Your task to perform on an android device: Open wifi settings Image 0: 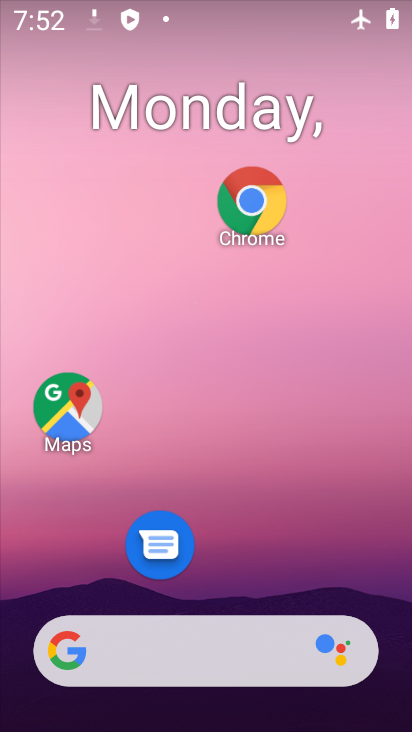
Step 0: drag from (241, 585) to (207, 126)
Your task to perform on an android device: Open wifi settings Image 1: 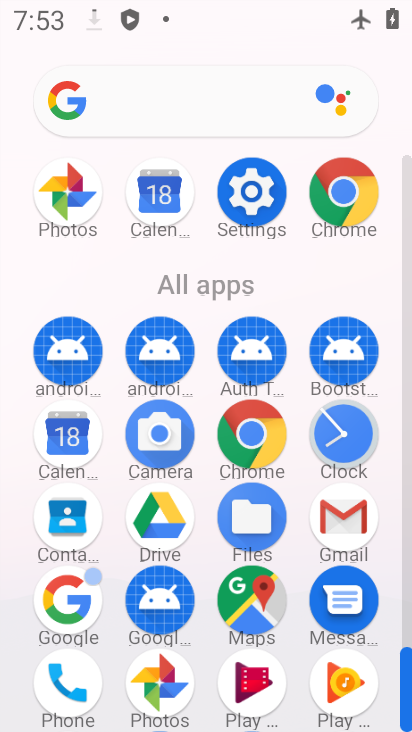
Step 1: click (231, 189)
Your task to perform on an android device: Open wifi settings Image 2: 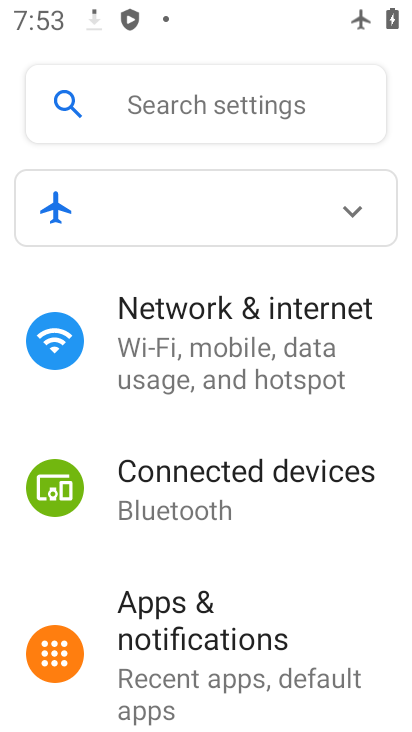
Step 2: click (224, 352)
Your task to perform on an android device: Open wifi settings Image 3: 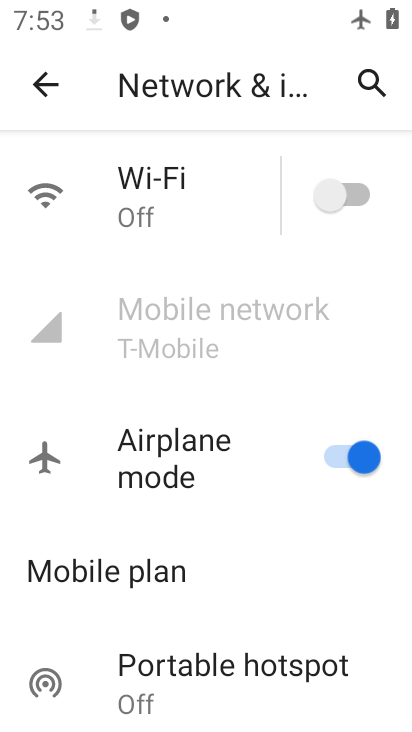
Step 3: click (198, 172)
Your task to perform on an android device: Open wifi settings Image 4: 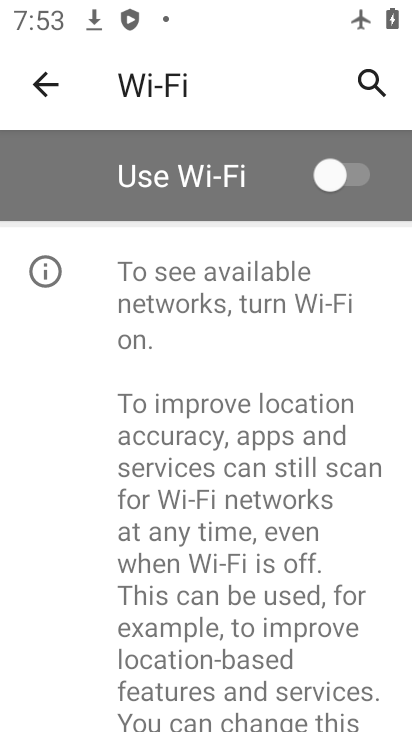
Step 4: task complete